Your task to perform on an android device: Open Chrome and go to settings Image 0: 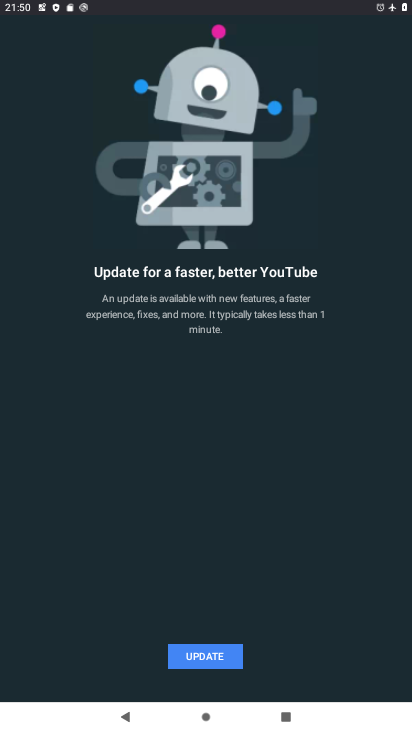
Step 0: press home button
Your task to perform on an android device: Open Chrome and go to settings Image 1: 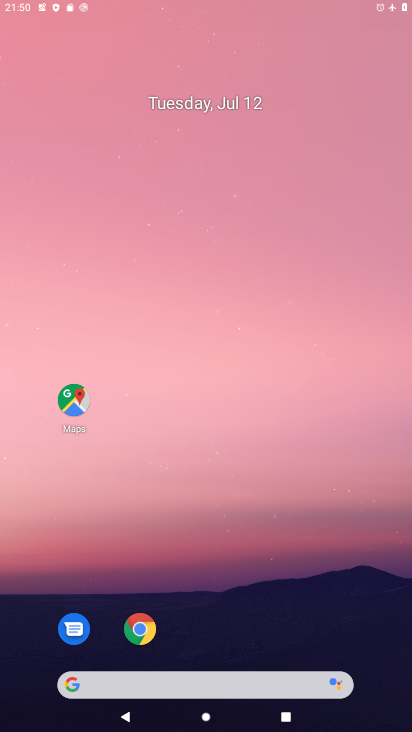
Step 1: drag from (259, 591) to (195, 187)
Your task to perform on an android device: Open Chrome and go to settings Image 2: 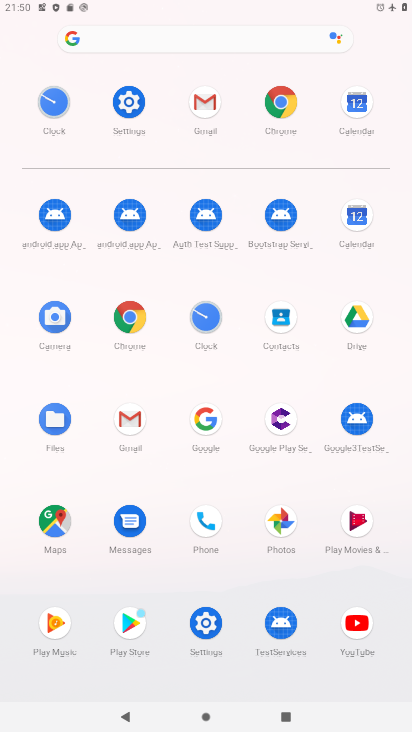
Step 2: click (275, 104)
Your task to perform on an android device: Open Chrome and go to settings Image 3: 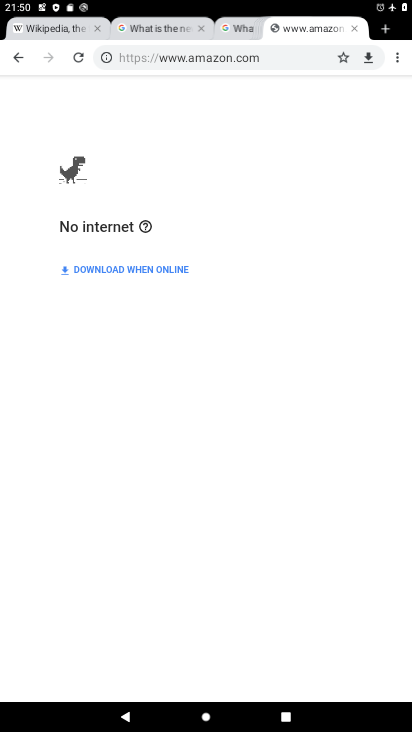
Step 3: click (397, 57)
Your task to perform on an android device: Open Chrome and go to settings Image 4: 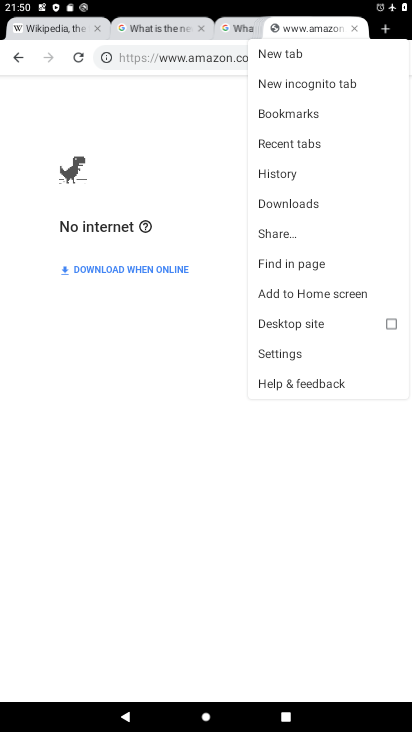
Step 4: click (292, 355)
Your task to perform on an android device: Open Chrome and go to settings Image 5: 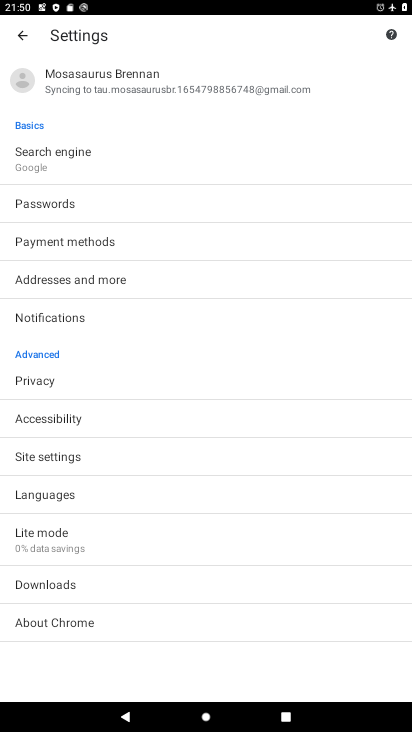
Step 5: task complete